Your task to perform on an android device: check data usage Image 0: 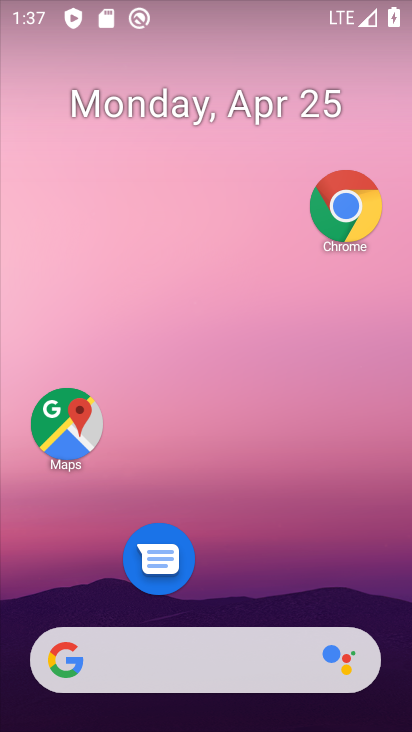
Step 0: drag from (260, 381) to (296, 88)
Your task to perform on an android device: check data usage Image 1: 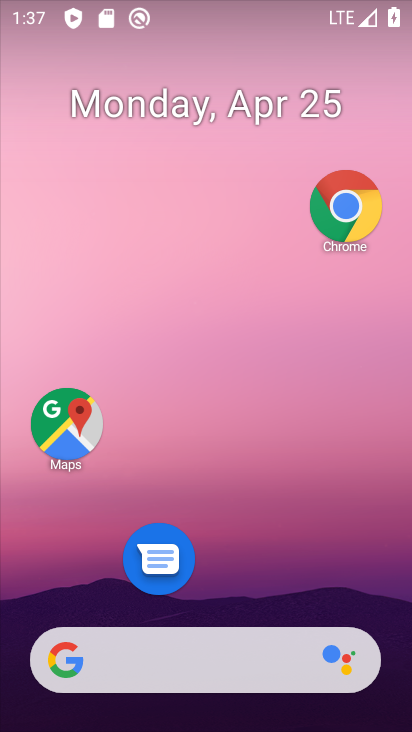
Step 1: drag from (212, 542) to (282, 126)
Your task to perform on an android device: check data usage Image 2: 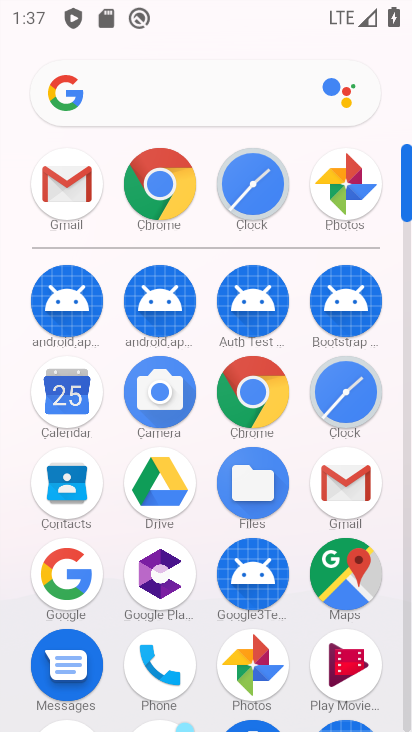
Step 2: drag from (225, 564) to (303, 135)
Your task to perform on an android device: check data usage Image 3: 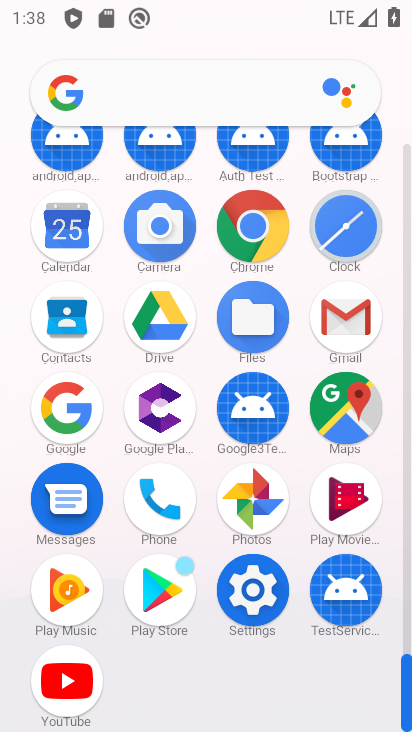
Step 3: click (263, 587)
Your task to perform on an android device: check data usage Image 4: 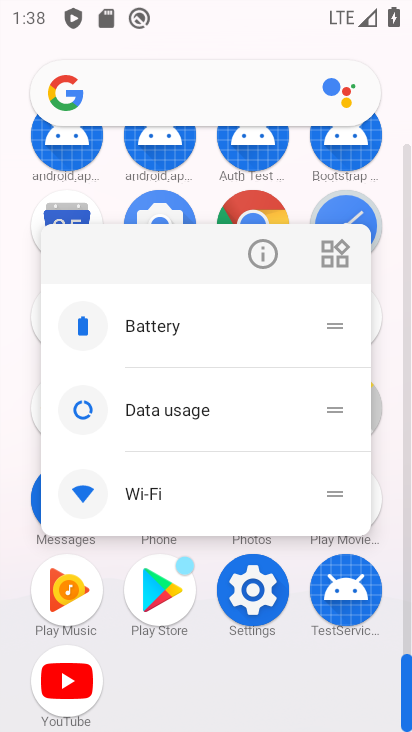
Step 4: click (253, 590)
Your task to perform on an android device: check data usage Image 5: 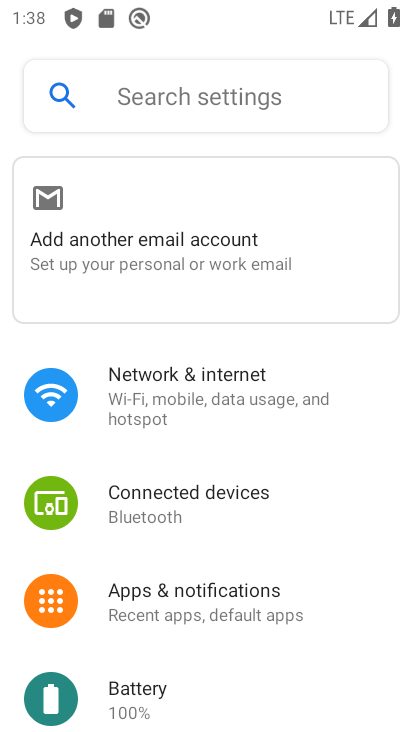
Step 5: click (237, 414)
Your task to perform on an android device: check data usage Image 6: 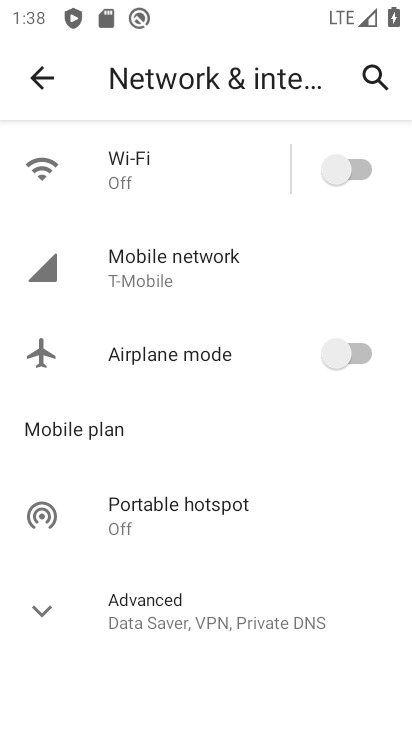
Step 6: click (181, 616)
Your task to perform on an android device: check data usage Image 7: 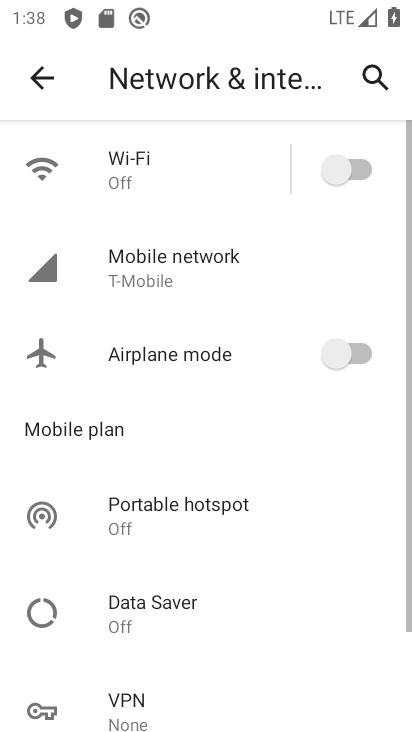
Step 7: click (173, 285)
Your task to perform on an android device: check data usage Image 8: 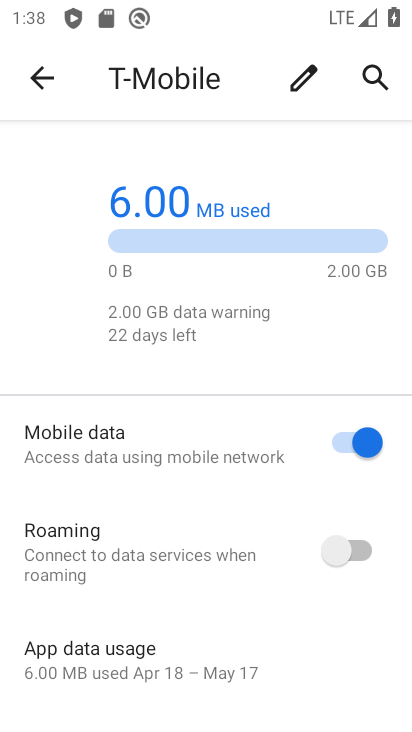
Step 8: click (163, 652)
Your task to perform on an android device: check data usage Image 9: 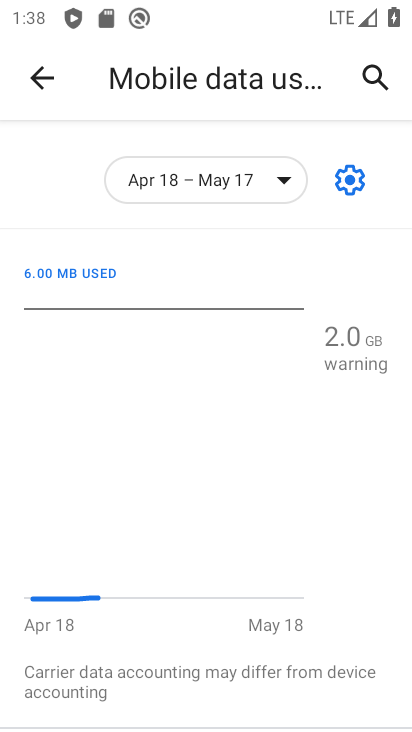
Step 9: task complete